Your task to perform on an android device: turn on bluetooth scan Image 0: 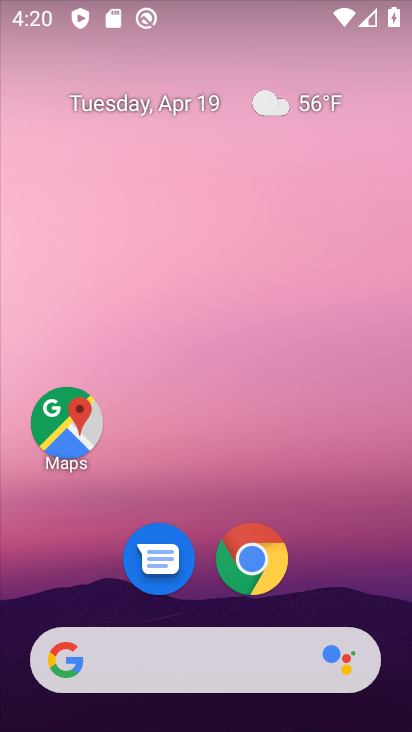
Step 0: click (370, 76)
Your task to perform on an android device: turn on bluetooth scan Image 1: 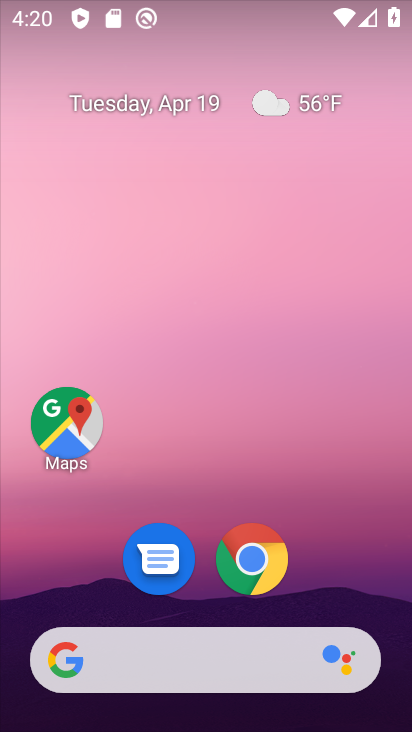
Step 1: drag from (371, 484) to (332, 104)
Your task to perform on an android device: turn on bluetooth scan Image 2: 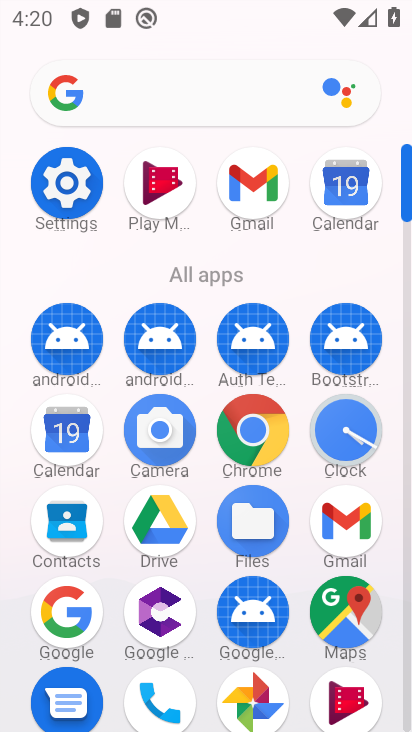
Step 2: click (73, 185)
Your task to perform on an android device: turn on bluetooth scan Image 3: 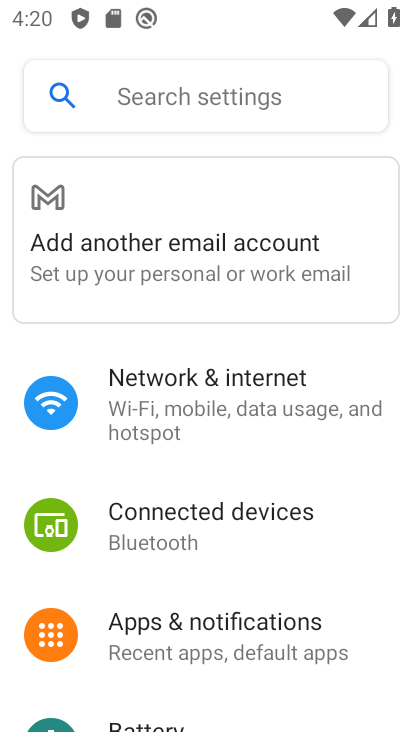
Step 3: drag from (368, 668) to (390, 189)
Your task to perform on an android device: turn on bluetooth scan Image 4: 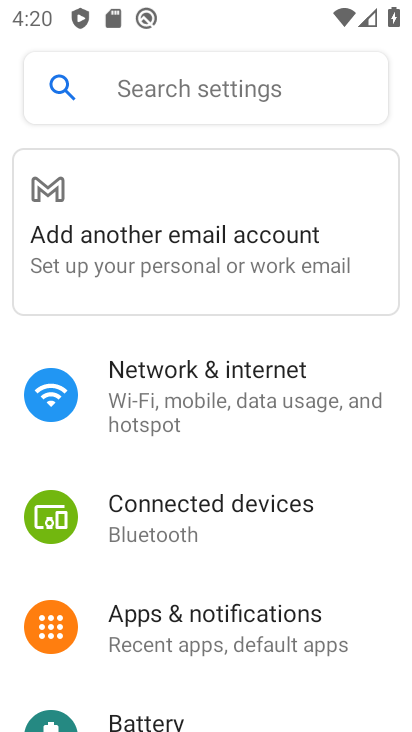
Step 4: drag from (389, 629) to (352, 197)
Your task to perform on an android device: turn on bluetooth scan Image 5: 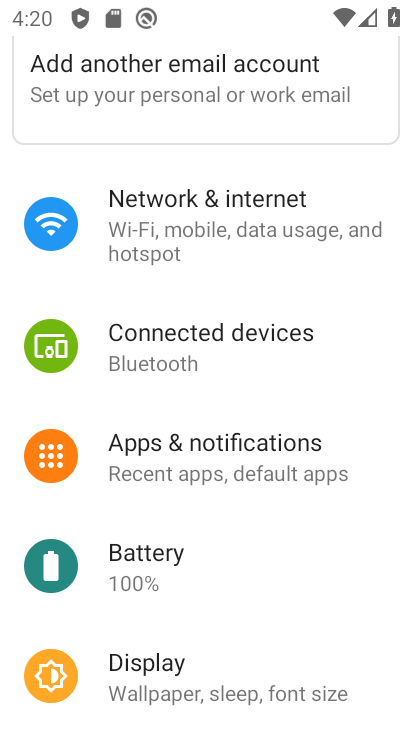
Step 5: drag from (371, 519) to (344, 227)
Your task to perform on an android device: turn on bluetooth scan Image 6: 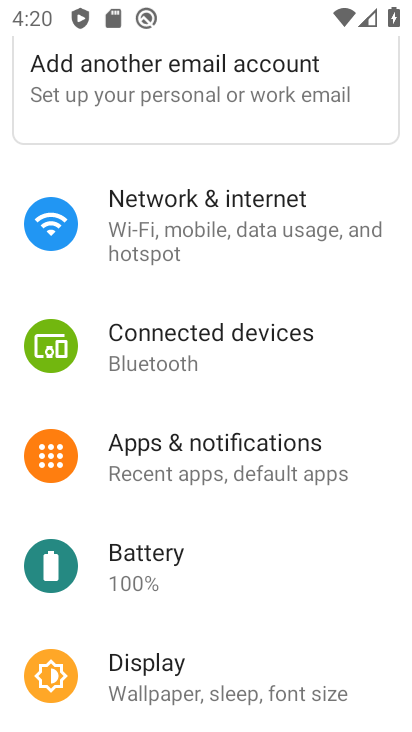
Step 6: click (375, 255)
Your task to perform on an android device: turn on bluetooth scan Image 7: 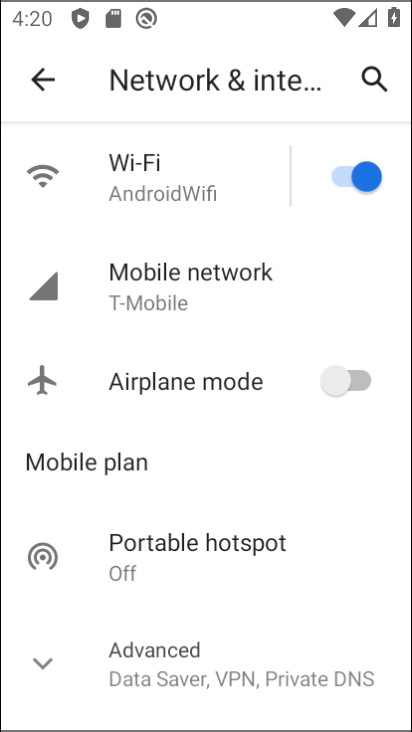
Step 7: drag from (384, 667) to (375, 255)
Your task to perform on an android device: turn on bluetooth scan Image 8: 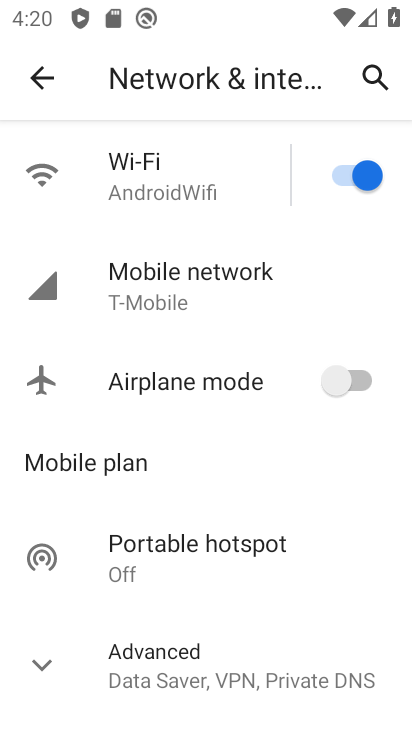
Step 8: drag from (365, 574) to (366, 206)
Your task to perform on an android device: turn on bluetooth scan Image 9: 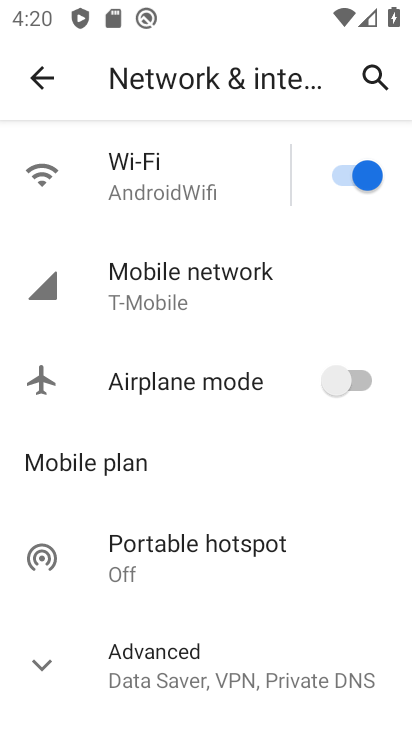
Step 9: drag from (366, 546) to (354, 292)
Your task to perform on an android device: turn on bluetooth scan Image 10: 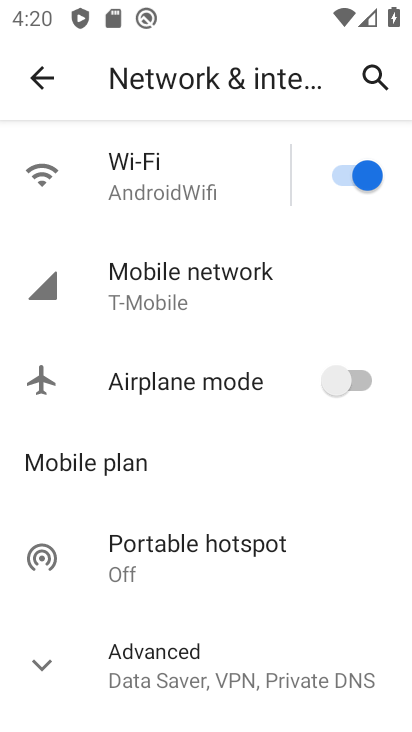
Step 10: drag from (395, 654) to (408, 170)
Your task to perform on an android device: turn on bluetooth scan Image 11: 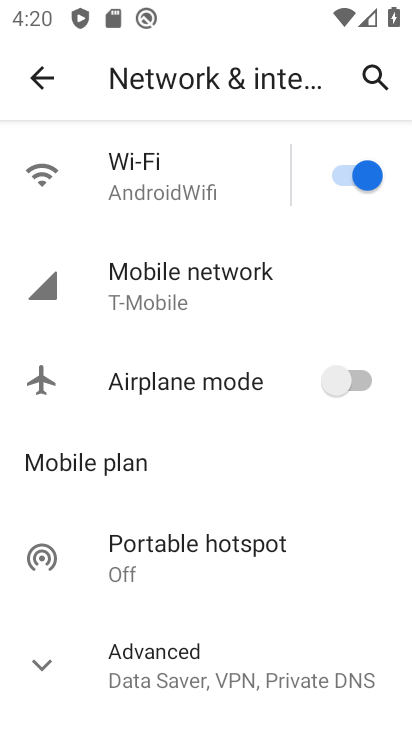
Step 11: drag from (373, 617) to (338, 350)
Your task to perform on an android device: turn on bluetooth scan Image 12: 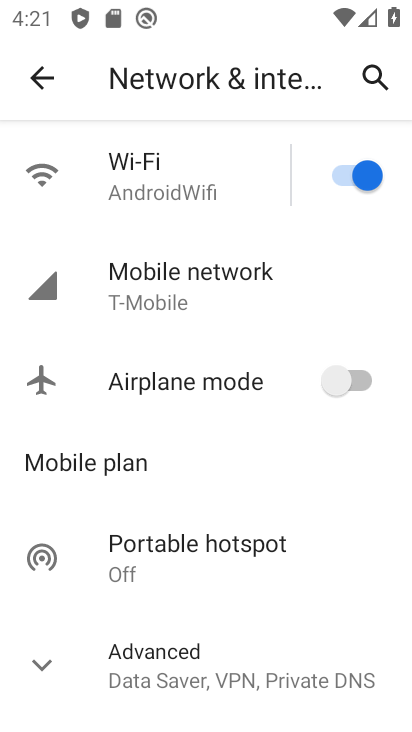
Step 12: drag from (382, 640) to (352, 224)
Your task to perform on an android device: turn on bluetooth scan Image 13: 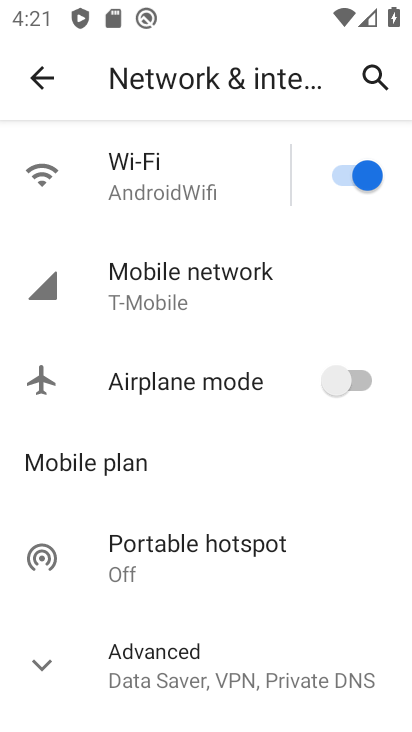
Step 13: press back button
Your task to perform on an android device: turn on bluetooth scan Image 14: 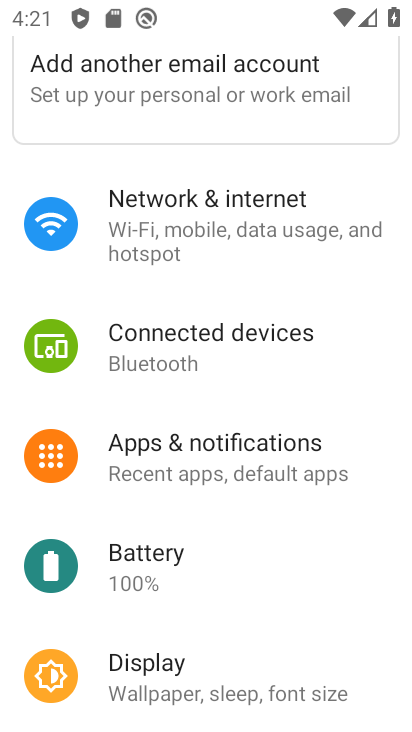
Step 14: drag from (411, 450) to (411, 385)
Your task to perform on an android device: turn on bluetooth scan Image 15: 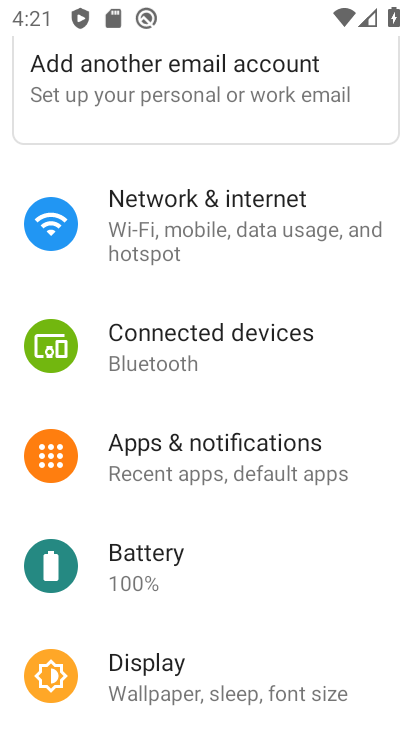
Step 15: drag from (370, 695) to (368, 277)
Your task to perform on an android device: turn on bluetooth scan Image 16: 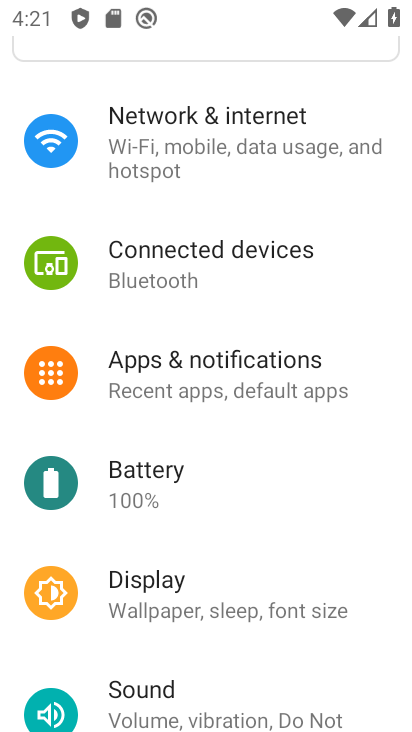
Step 16: drag from (409, 482) to (405, 218)
Your task to perform on an android device: turn on bluetooth scan Image 17: 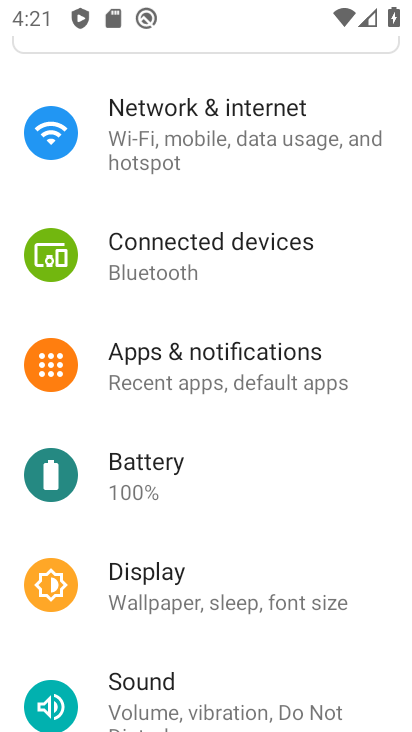
Step 17: click (388, 271)
Your task to perform on an android device: turn on bluetooth scan Image 18: 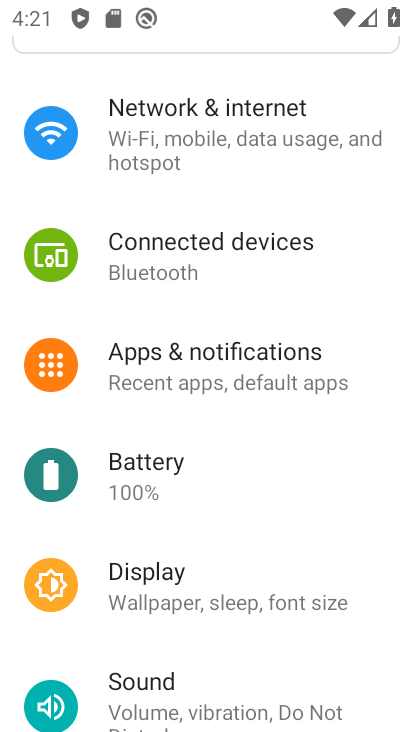
Step 18: drag from (375, 683) to (382, 366)
Your task to perform on an android device: turn on bluetooth scan Image 19: 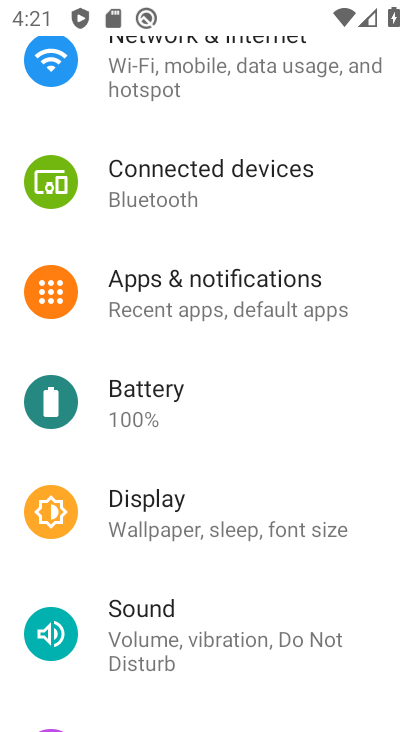
Step 19: drag from (373, 657) to (383, 305)
Your task to perform on an android device: turn on bluetooth scan Image 20: 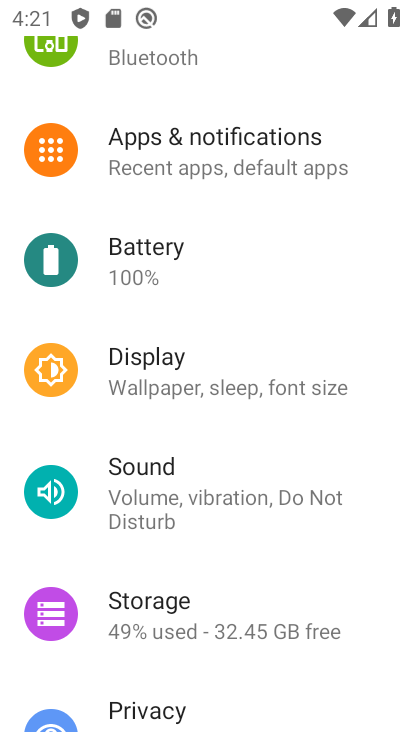
Step 20: drag from (389, 564) to (371, 257)
Your task to perform on an android device: turn on bluetooth scan Image 21: 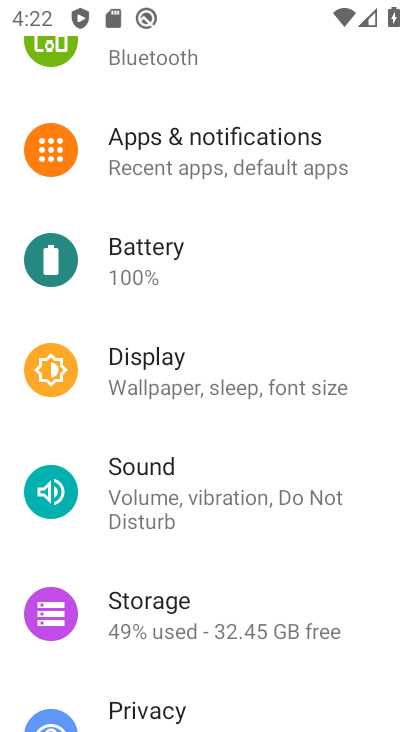
Step 21: drag from (375, 653) to (385, 205)
Your task to perform on an android device: turn on bluetooth scan Image 22: 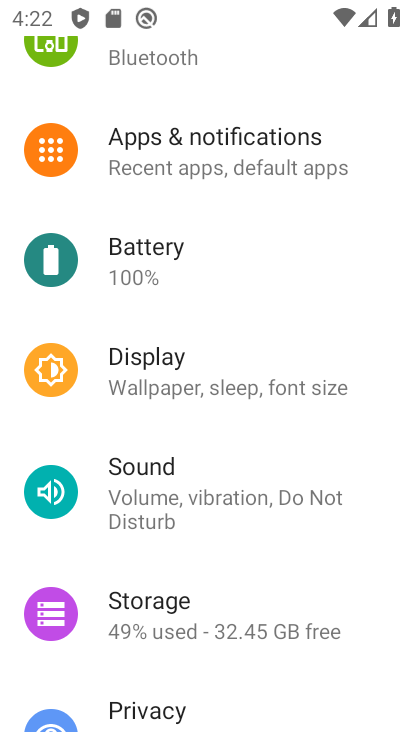
Step 22: drag from (395, 666) to (380, 106)
Your task to perform on an android device: turn on bluetooth scan Image 23: 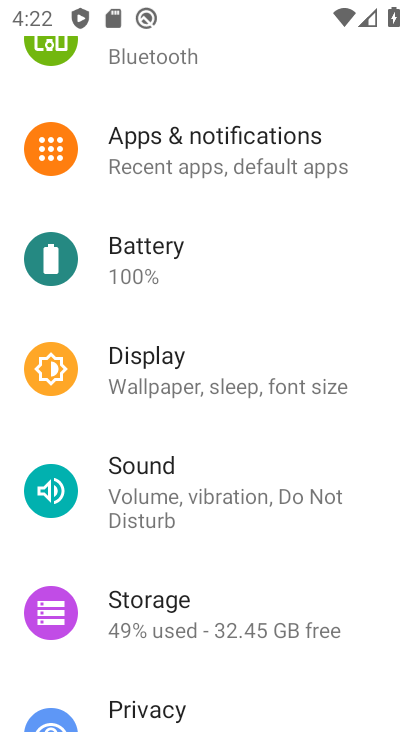
Step 23: drag from (381, 518) to (382, 261)
Your task to perform on an android device: turn on bluetooth scan Image 24: 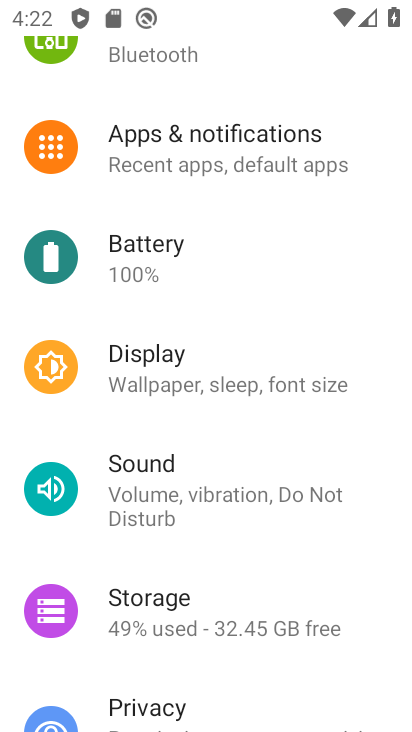
Step 24: drag from (375, 648) to (411, 192)
Your task to perform on an android device: turn on bluetooth scan Image 25: 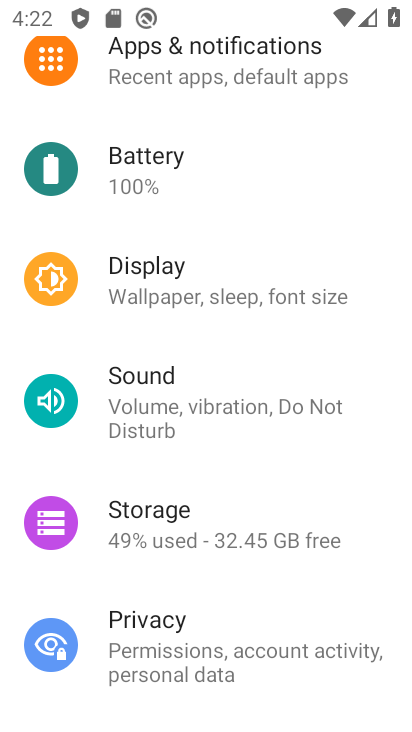
Step 25: drag from (370, 666) to (371, 148)
Your task to perform on an android device: turn on bluetooth scan Image 26: 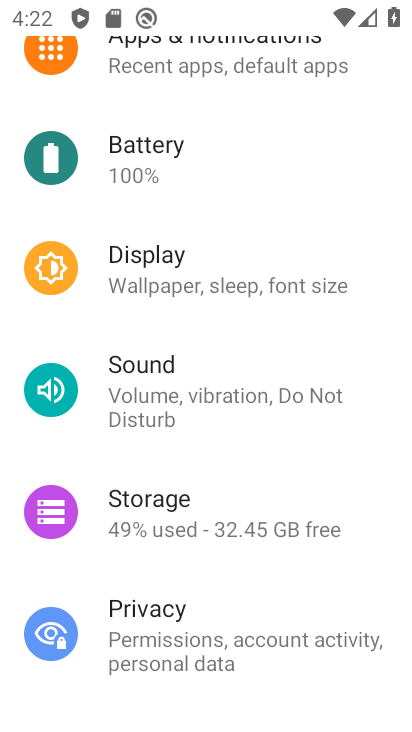
Step 26: drag from (387, 606) to (386, 135)
Your task to perform on an android device: turn on bluetooth scan Image 27: 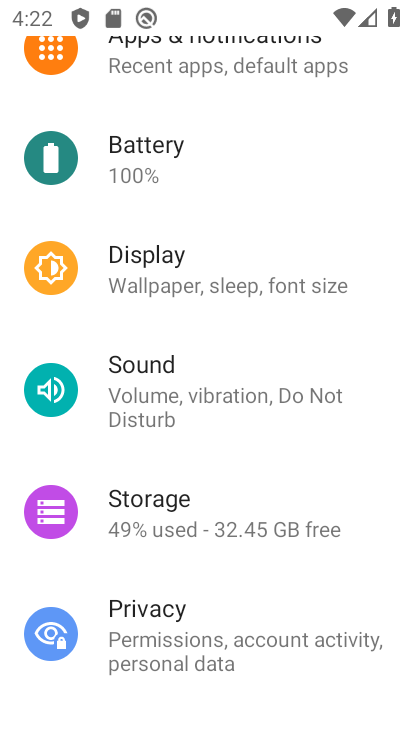
Step 27: drag from (403, 498) to (407, 269)
Your task to perform on an android device: turn on bluetooth scan Image 28: 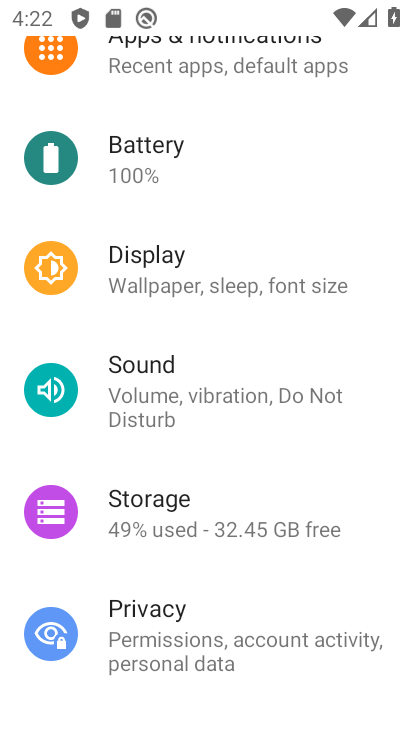
Step 28: drag from (386, 588) to (410, 503)
Your task to perform on an android device: turn on bluetooth scan Image 29: 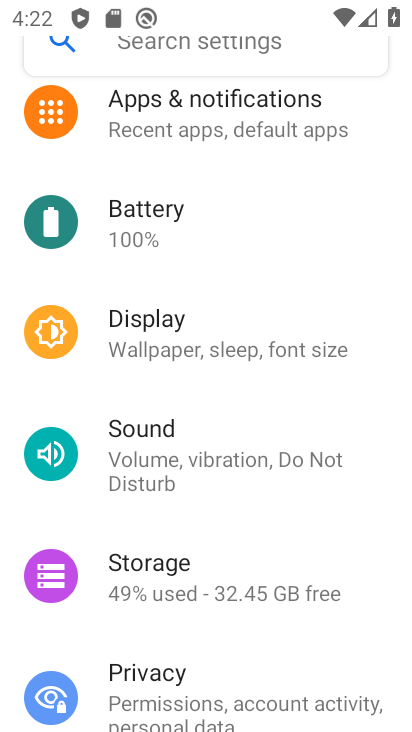
Step 29: drag from (395, 566) to (411, 141)
Your task to perform on an android device: turn on bluetooth scan Image 30: 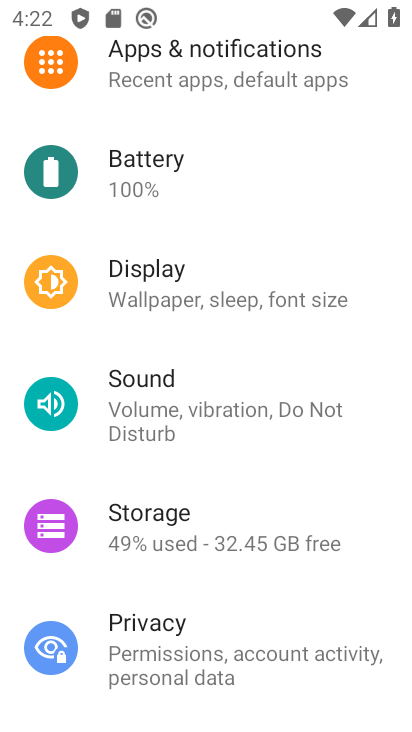
Step 30: drag from (378, 612) to (383, 205)
Your task to perform on an android device: turn on bluetooth scan Image 31: 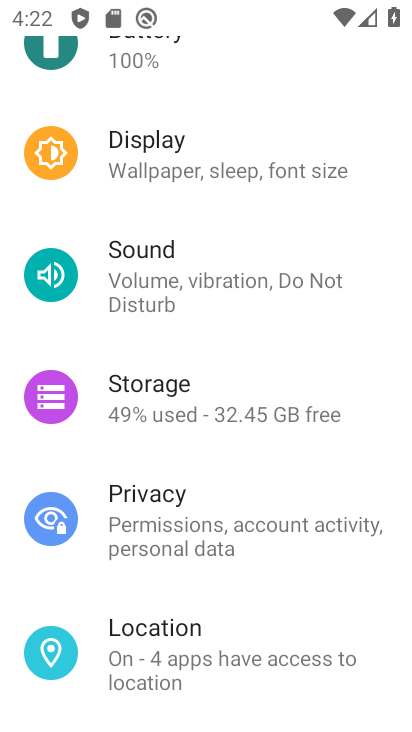
Step 31: drag from (397, 543) to (408, 107)
Your task to perform on an android device: turn on bluetooth scan Image 32: 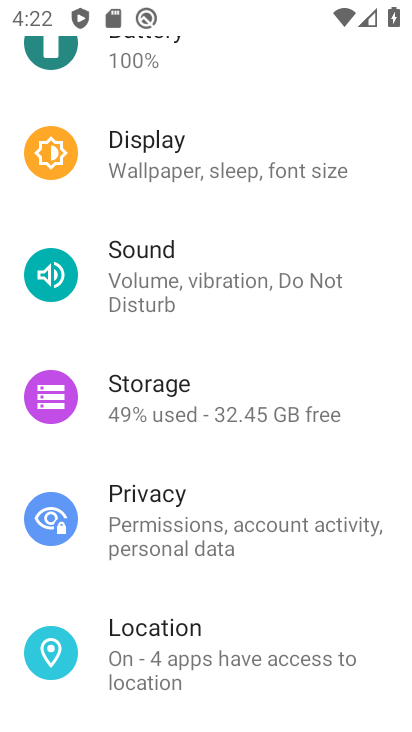
Step 32: drag from (411, 266) to (410, 133)
Your task to perform on an android device: turn on bluetooth scan Image 33: 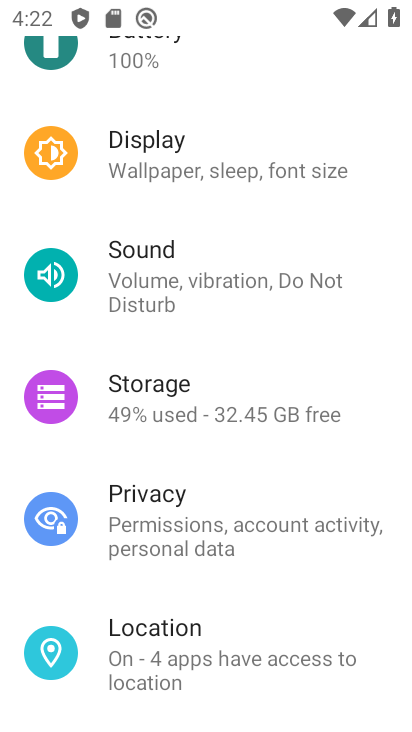
Step 33: click (141, 635)
Your task to perform on an android device: turn on bluetooth scan Image 34: 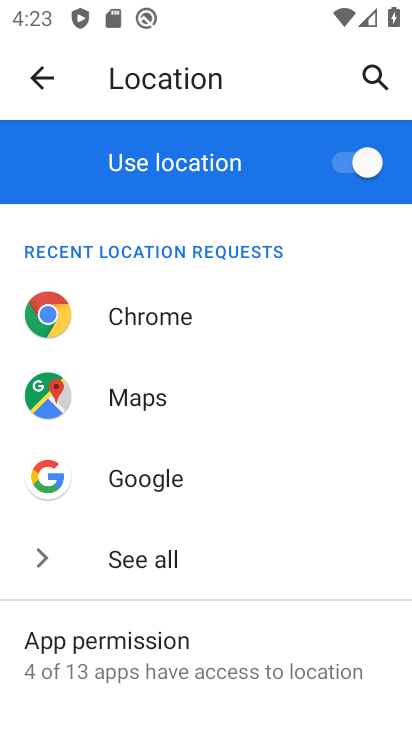
Step 34: drag from (325, 569) to (353, 290)
Your task to perform on an android device: turn on bluetooth scan Image 35: 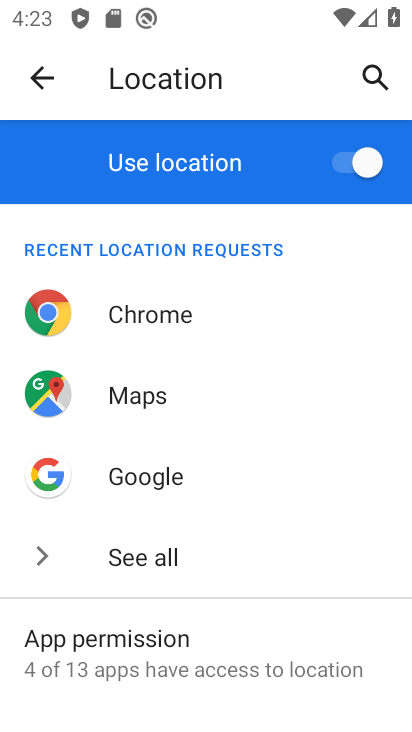
Step 35: drag from (364, 640) to (342, 319)
Your task to perform on an android device: turn on bluetooth scan Image 36: 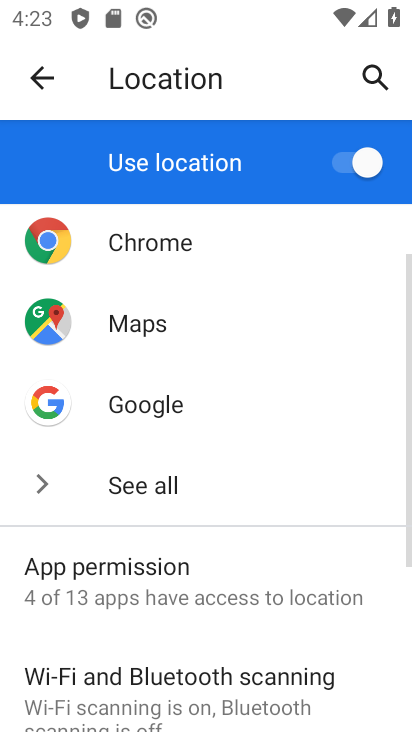
Step 36: drag from (402, 595) to (400, 269)
Your task to perform on an android device: turn on bluetooth scan Image 37: 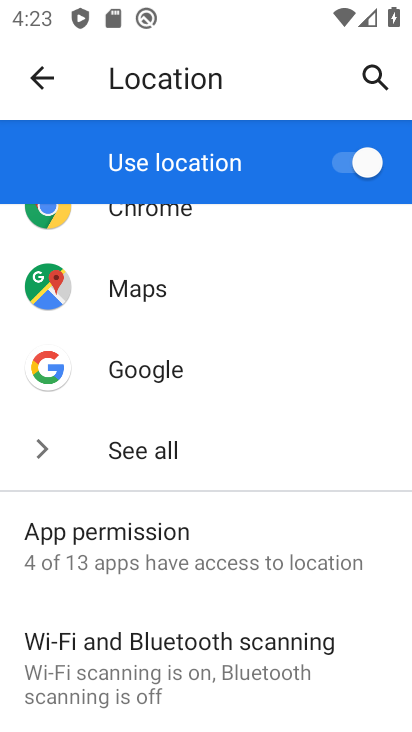
Step 37: click (147, 637)
Your task to perform on an android device: turn on bluetooth scan Image 38: 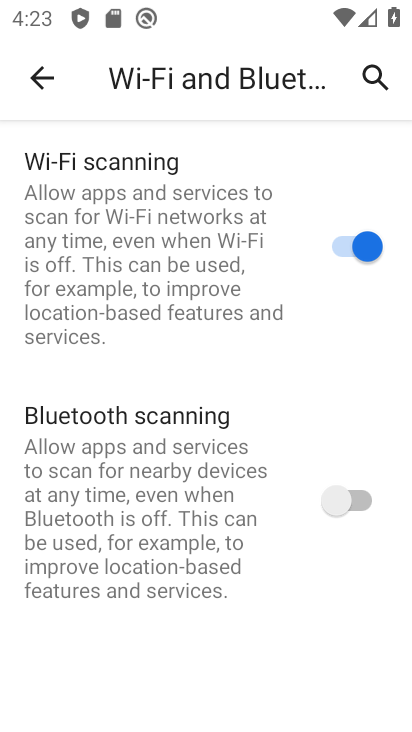
Step 38: drag from (283, 459) to (288, 181)
Your task to perform on an android device: turn on bluetooth scan Image 39: 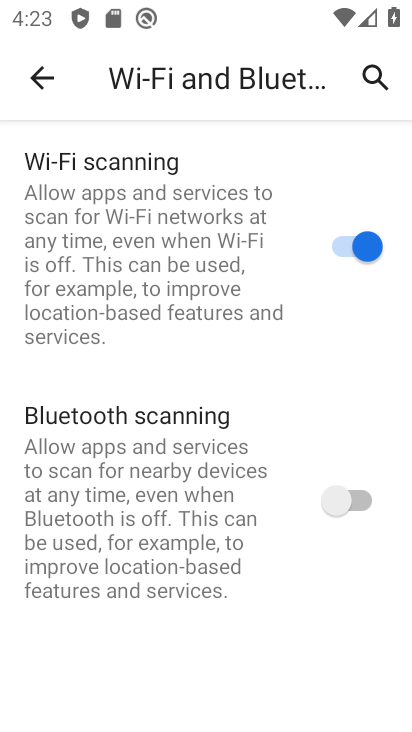
Step 39: click (347, 504)
Your task to perform on an android device: turn on bluetooth scan Image 40: 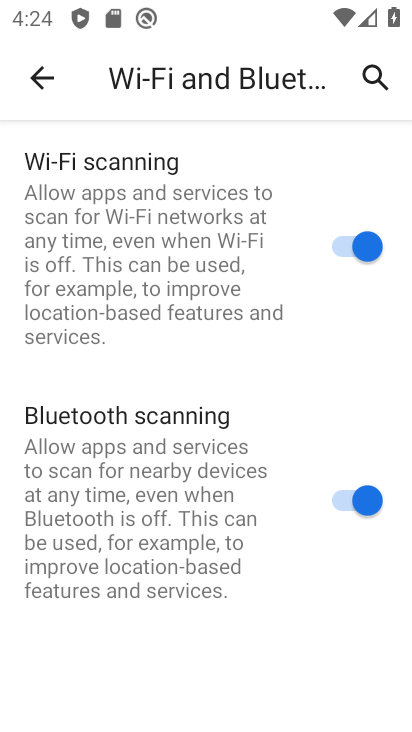
Step 40: task complete